Your task to perform on an android device: What's on my calendar tomorrow? Image 0: 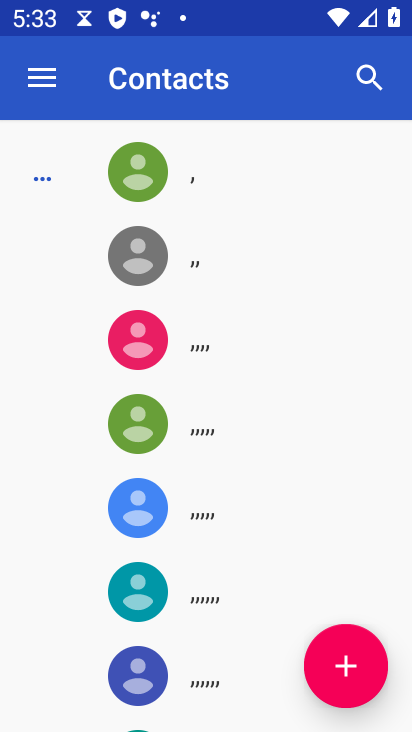
Step 0: press back button
Your task to perform on an android device: What's on my calendar tomorrow? Image 1: 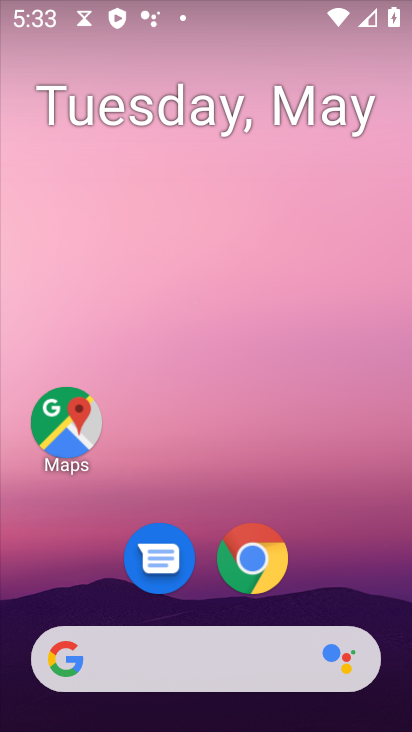
Step 1: drag from (387, 628) to (193, 1)
Your task to perform on an android device: What's on my calendar tomorrow? Image 2: 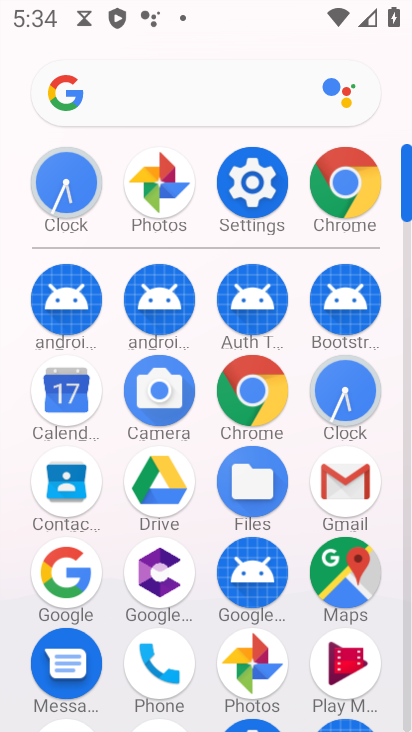
Step 2: click (343, 397)
Your task to perform on an android device: What's on my calendar tomorrow? Image 3: 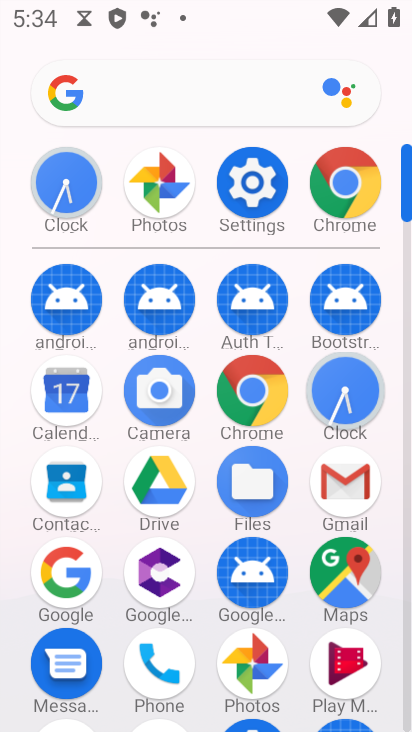
Step 3: click (344, 397)
Your task to perform on an android device: What's on my calendar tomorrow? Image 4: 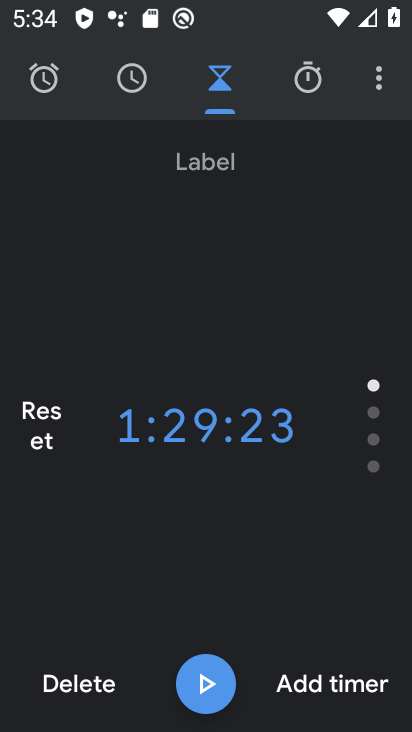
Step 4: press back button
Your task to perform on an android device: What's on my calendar tomorrow? Image 5: 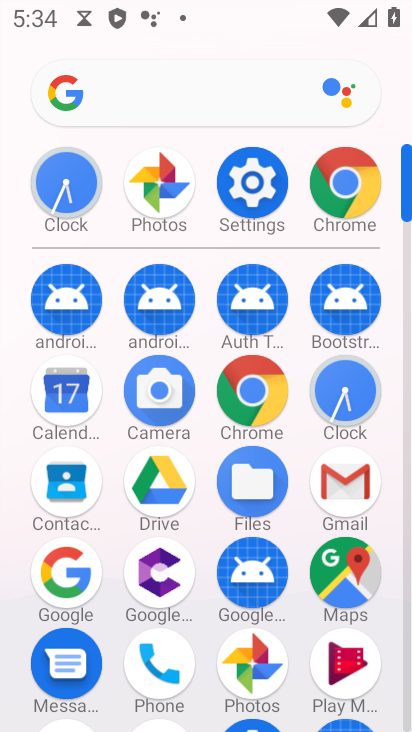
Step 5: click (62, 387)
Your task to perform on an android device: What's on my calendar tomorrow? Image 6: 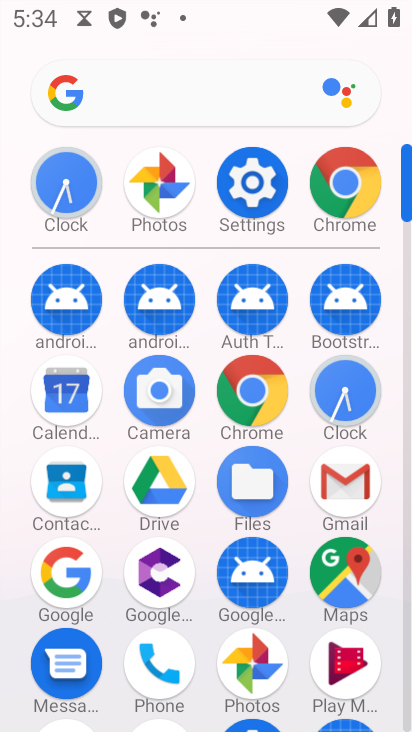
Step 6: click (63, 384)
Your task to perform on an android device: What's on my calendar tomorrow? Image 7: 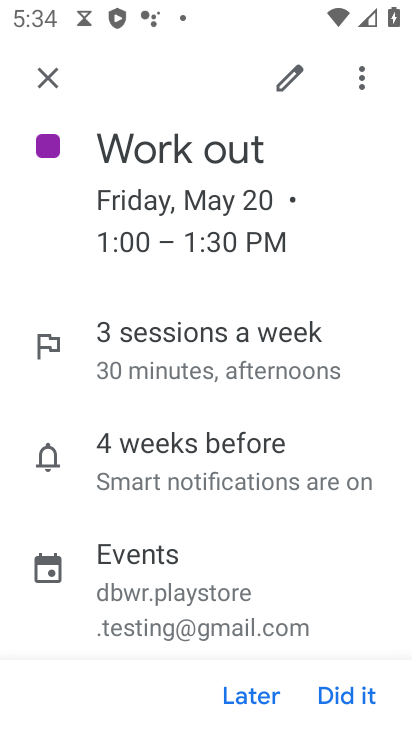
Step 7: click (40, 75)
Your task to perform on an android device: What's on my calendar tomorrow? Image 8: 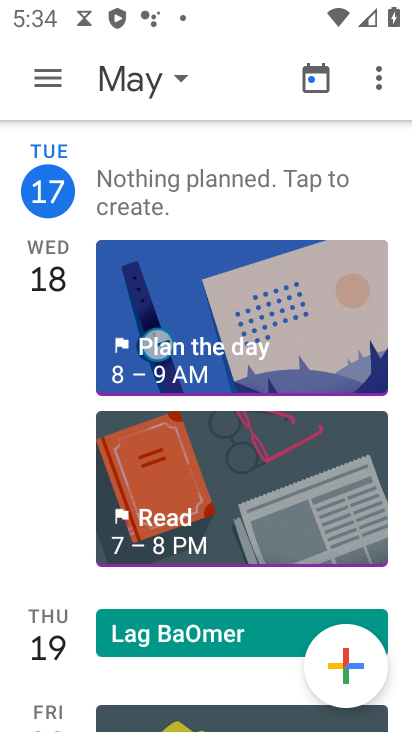
Step 8: drag from (232, 343) to (214, 172)
Your task to perform on an android device: What's on my calendar tomorrow? Image 9: 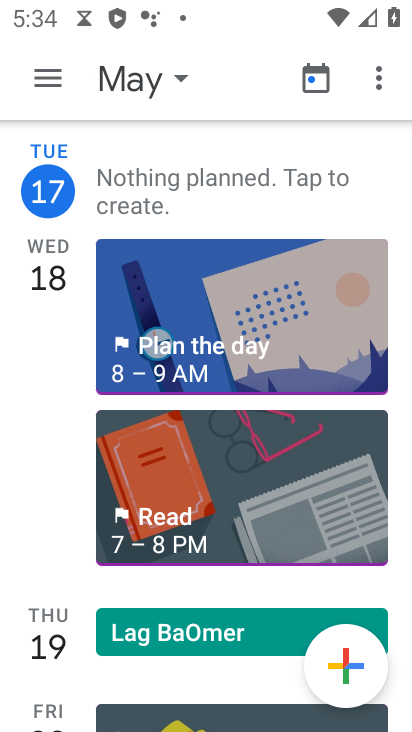
Step 9: drag from (203, 458) to (209, 9)
Your task to perform on an android device: What's on my calendar tomorrow? Image 10: 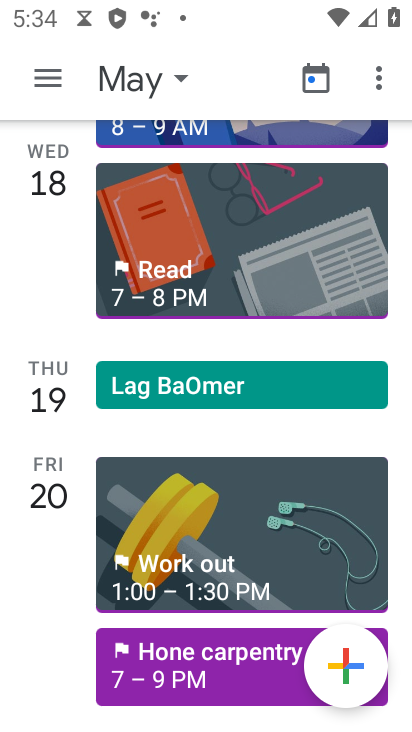
Step 10: drag from (207, 415) to (207, 36)
Your task to perform on an android device: What's on my calendar tomorrow? Image 11: 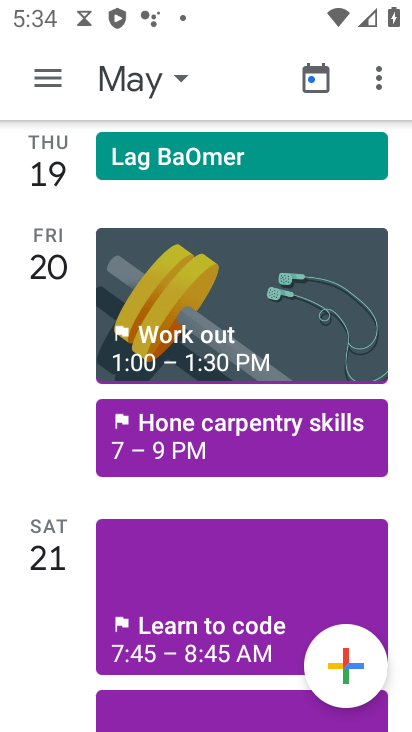
Step 11: drag from (182, 367) to (182, 57)
Your task to perform on an android device: What's on my calendar tomorrow? Image 12: 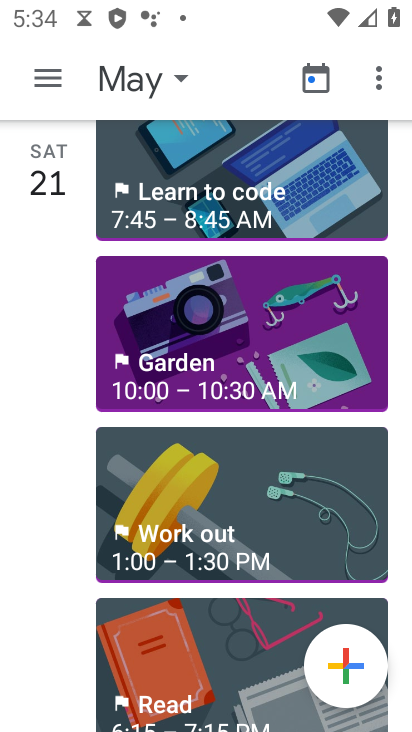
Step 12: drag from (186, 343) to (186, 30)
Your task to perform on an android device: What's on my calendar tomorrow? Image 13: 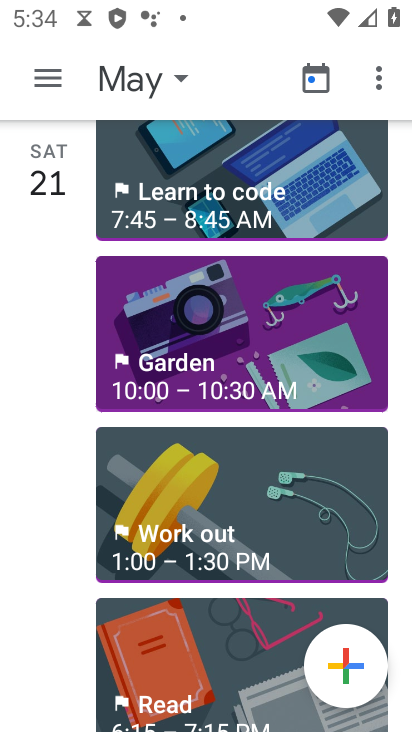
Step 13: drag from (209, 407) to (191, 34)
Your task to perform on an android device: What's on my calendar tomorrow? Image 14: 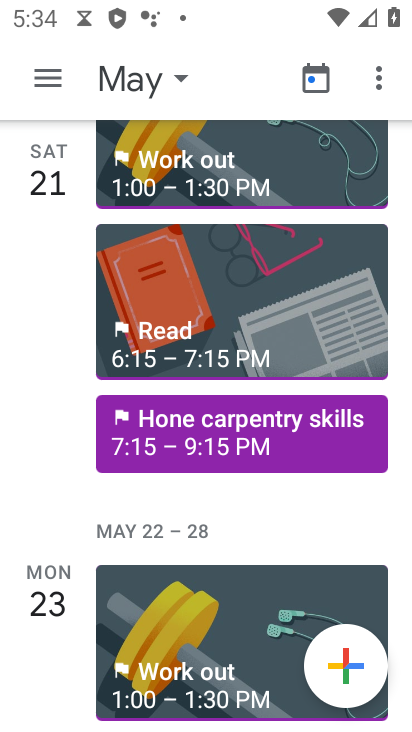
Step 14: click (188, 10)
Your task to perform on an android device: What's on my calendar tomorrow? Image 15: 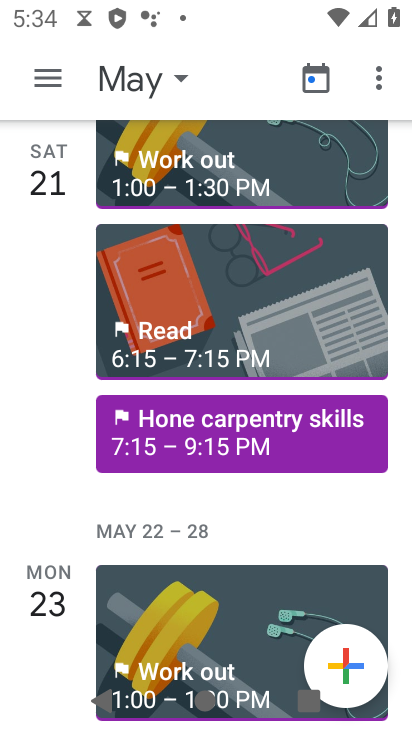
Step 15: task complete